Your task to perform on an android device: See recent photos Image 0: 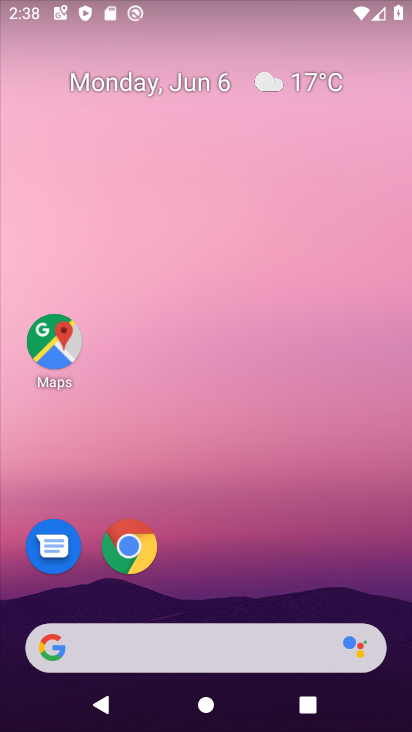
Step 0: drag from (322, 381) to (315, 112)
Your task to perform on an android device: See recent photos Image 1: 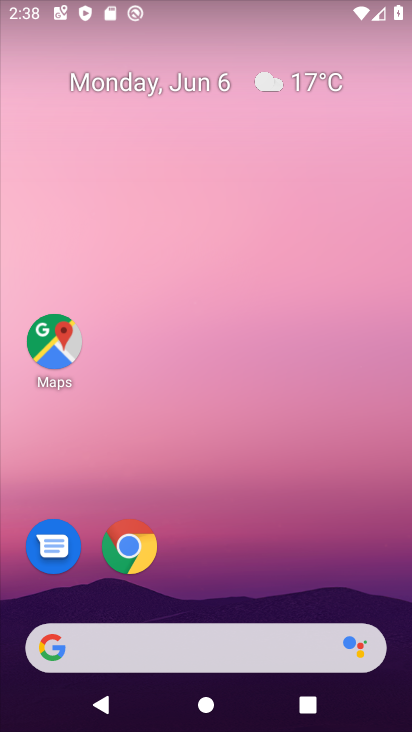
Step 1: drag from (278, 584) to (273, 58)
Your task to perform on an android device: See recent photos Image 2: 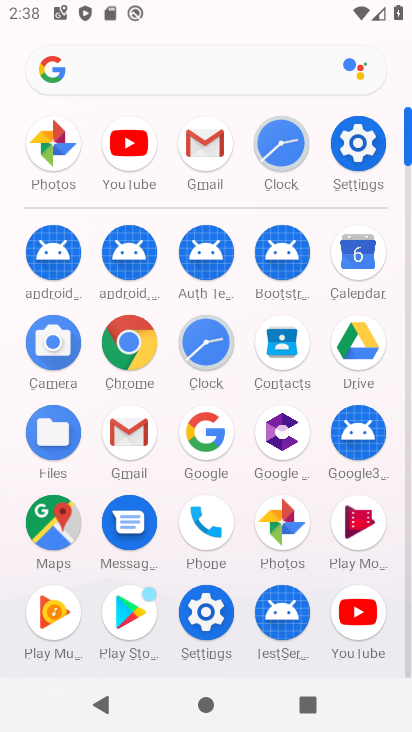
Step 2: click (46, 144)
Your task to perform on an android device: See recent photos Image 3: 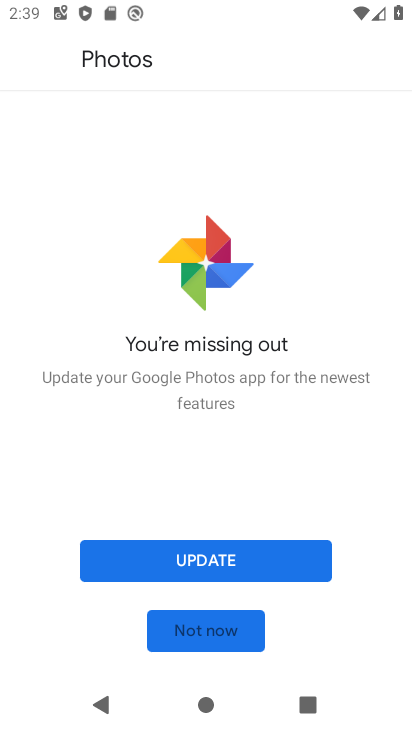
Step 3: click (148, 547)
Your task to perform on an android device: See recent photos Image 4: 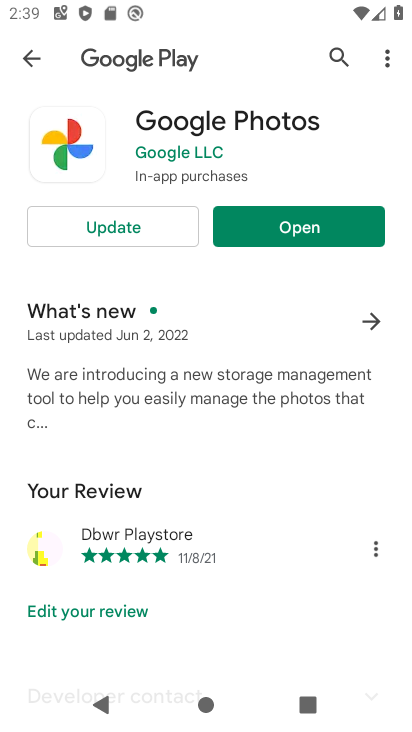
Step 4: click (136, 211)
Your task to perform on an android device: See recent photos Image 5: 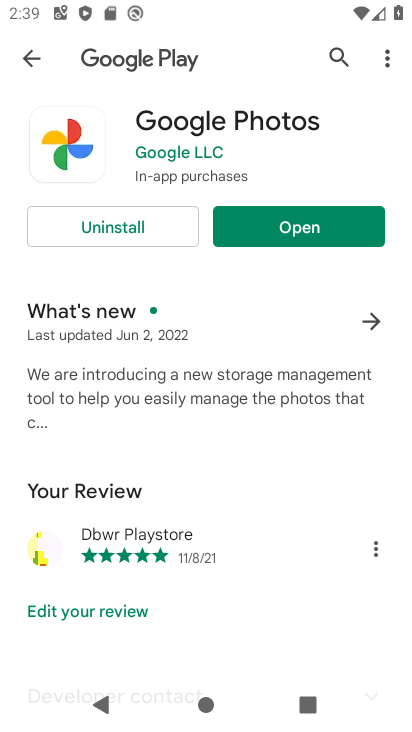
Step 5: click (257, 234)
Your task to perform on an android device: See recent photos Image 6: 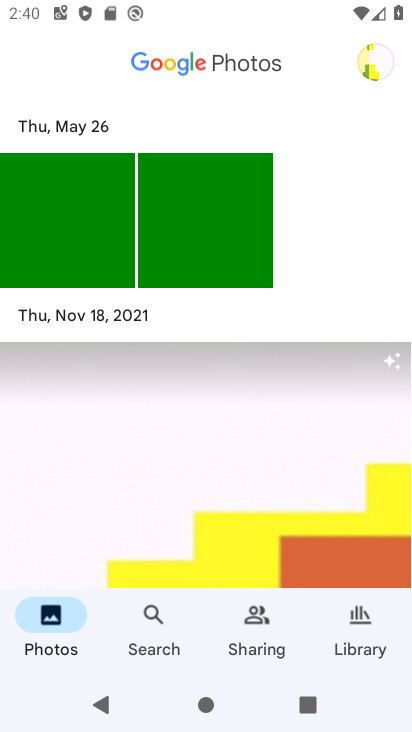
Step 6: click (354, 626)
Your task to perform on an android device: See recent photos Image 7: 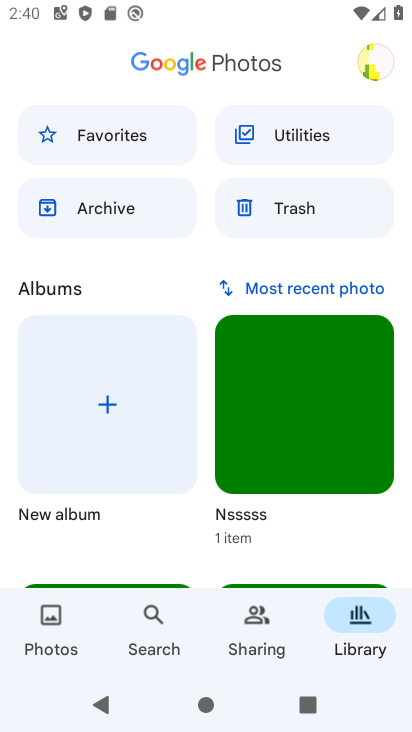
Step 7: click (161, 193)
Your task to perform on an android device: See recent photos Image 8: 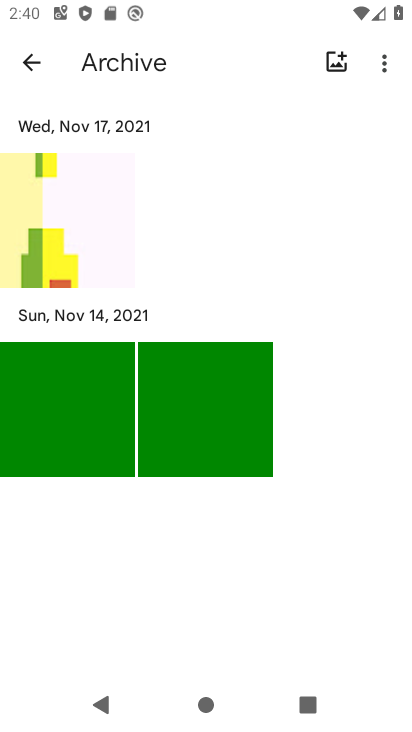
Step 8: task complete